Your task to perform on an android device: Search for the best-rated coffee table on Crate & Barrel Image 0: 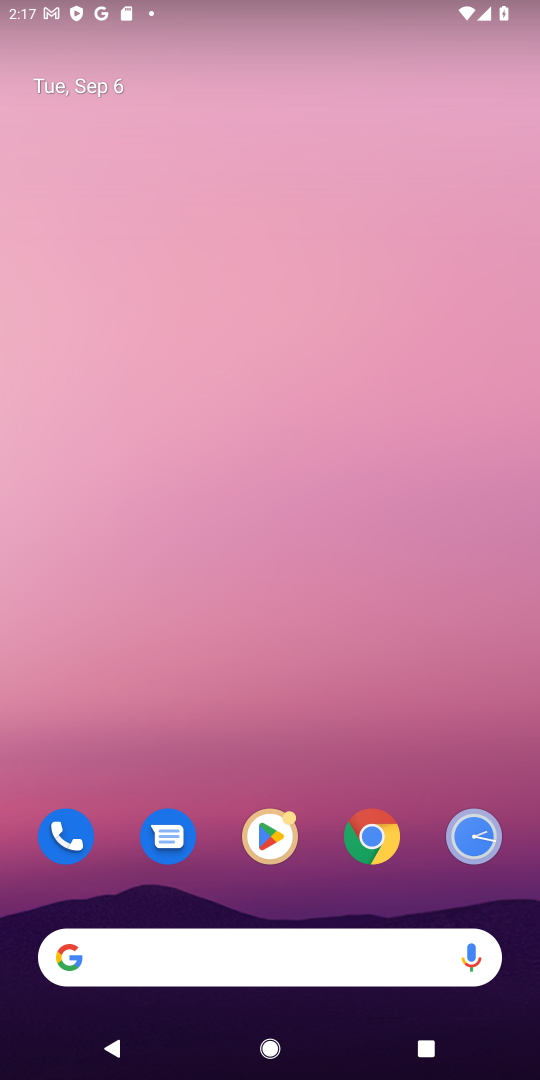
Step 0: click (262, 956)
Your task to perform on an android device: Search for the best-rated coffee table on Crate & Barrel Image 1: 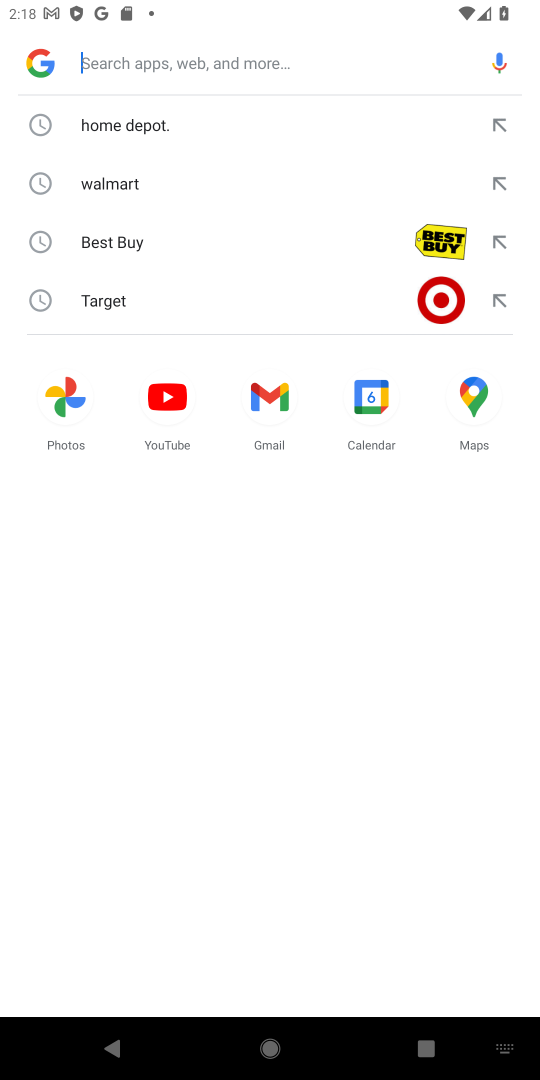
Step 1: type "crate & barrel"
Your task to perform on an android device: Search for the best-rated coffee table on Crate & Barrel Image 2: 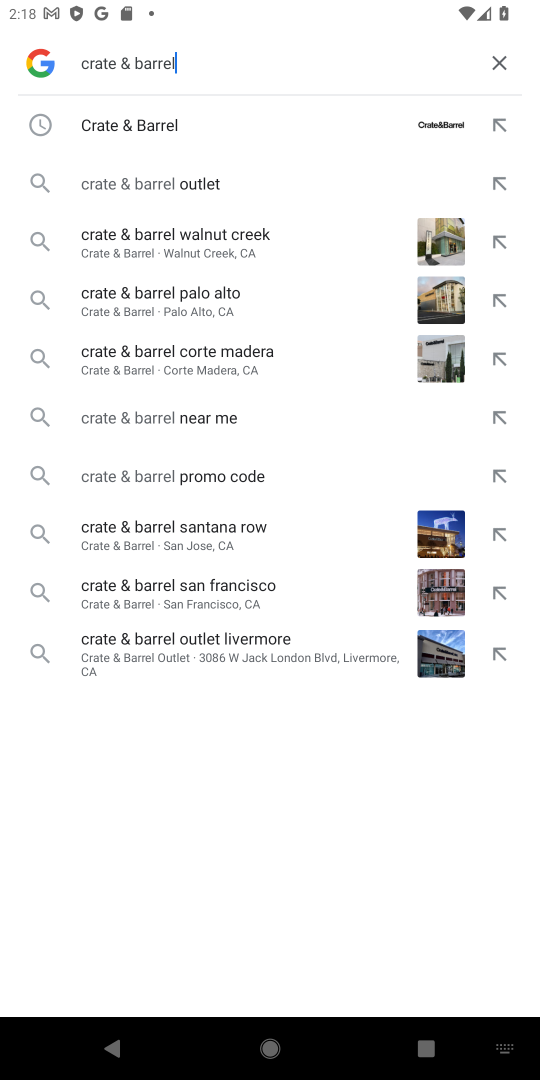
Step 2: click (158, 120)
Your task to perform on an android device: Search for the best-rated coffee table on Crate & Barrel Image 3: 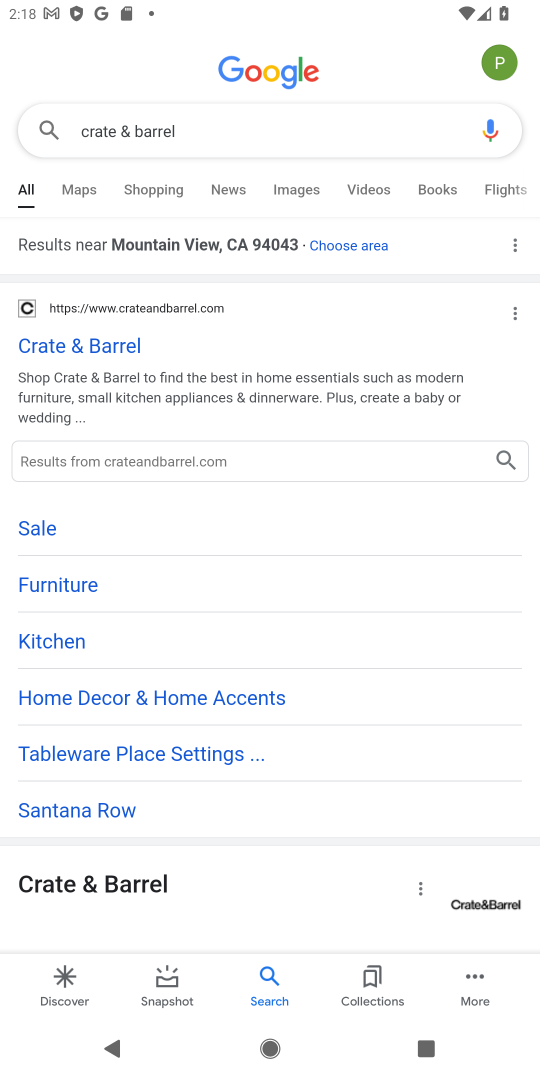
Step 3: click (62, 338)
Your task to perform on an android device: Search for the best-rated coffee table on Crate & Barrel Image 4: 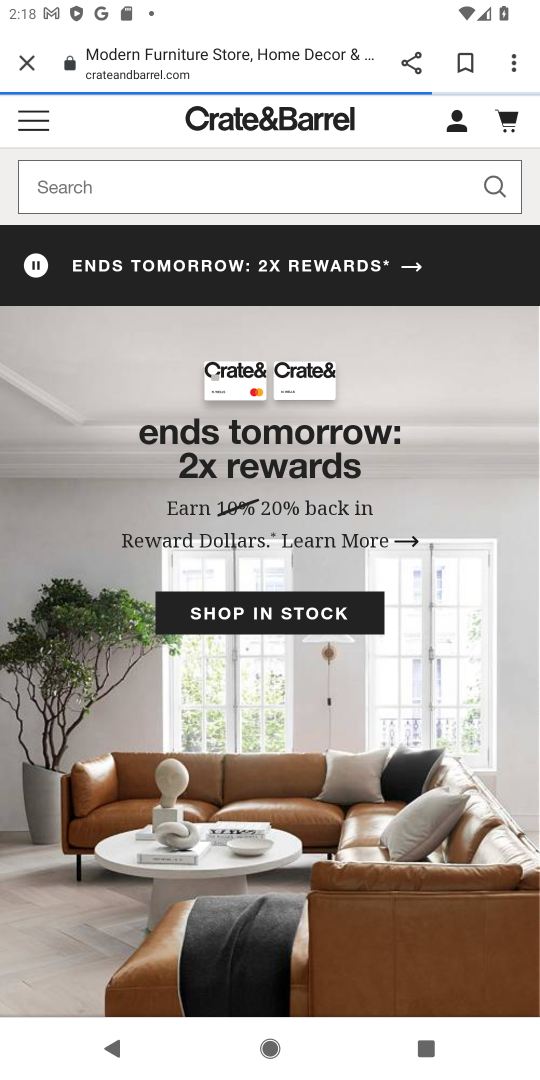
Step 4: click (235, 180)
Your task to perform on an android device: Search for the best-rated coffee table on Crate & Barrel Image 5: 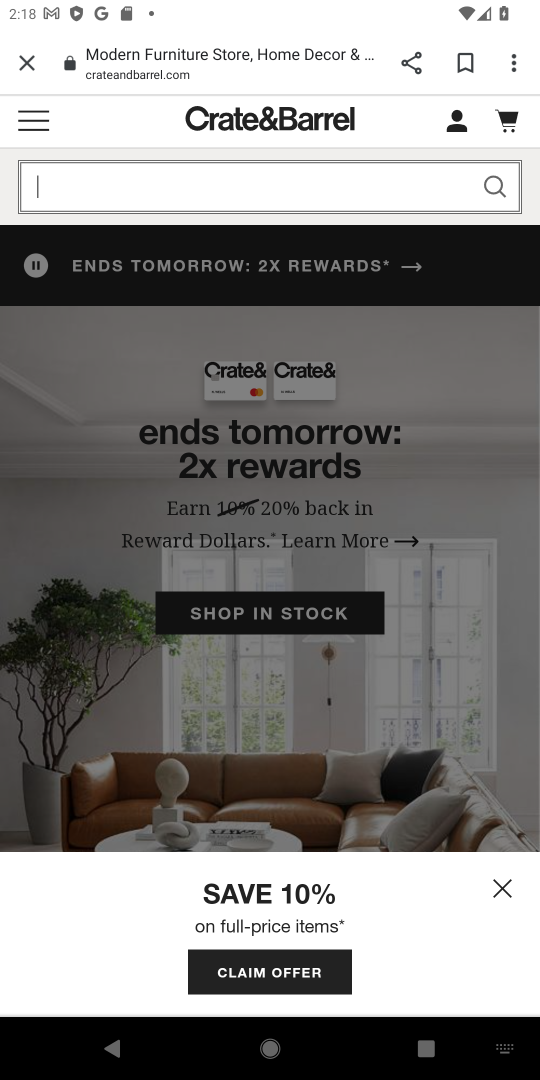
Step 5: click (150, 187)
Your task to perform on an android device: Search for the best-rated coffee table on Crate & Barrel Image 6: 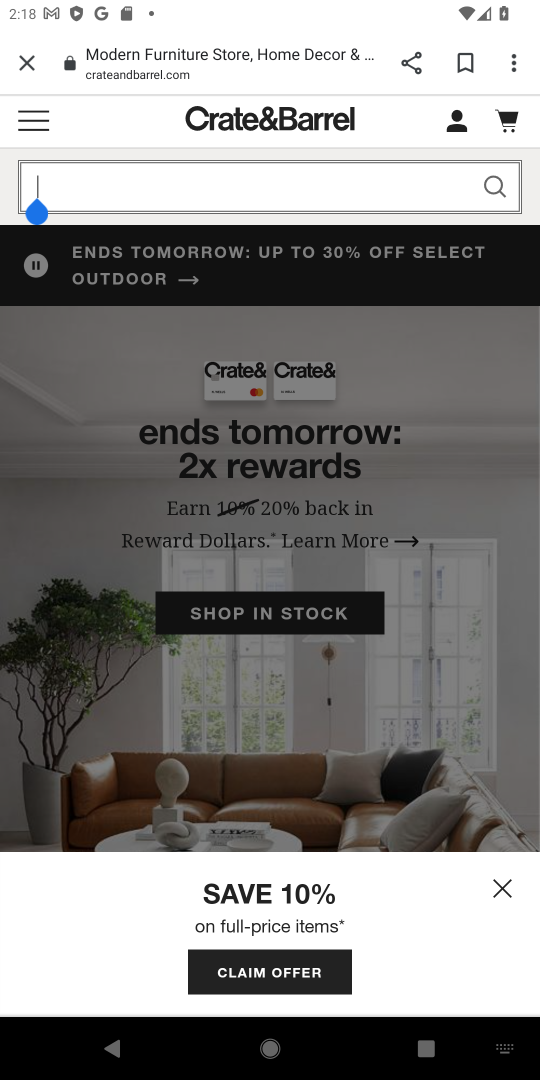
Step 6: type "best rated coffee table"
Your task to perform on an android device: Search for the best-rated coffee table on Crate & Barrel Image 7: 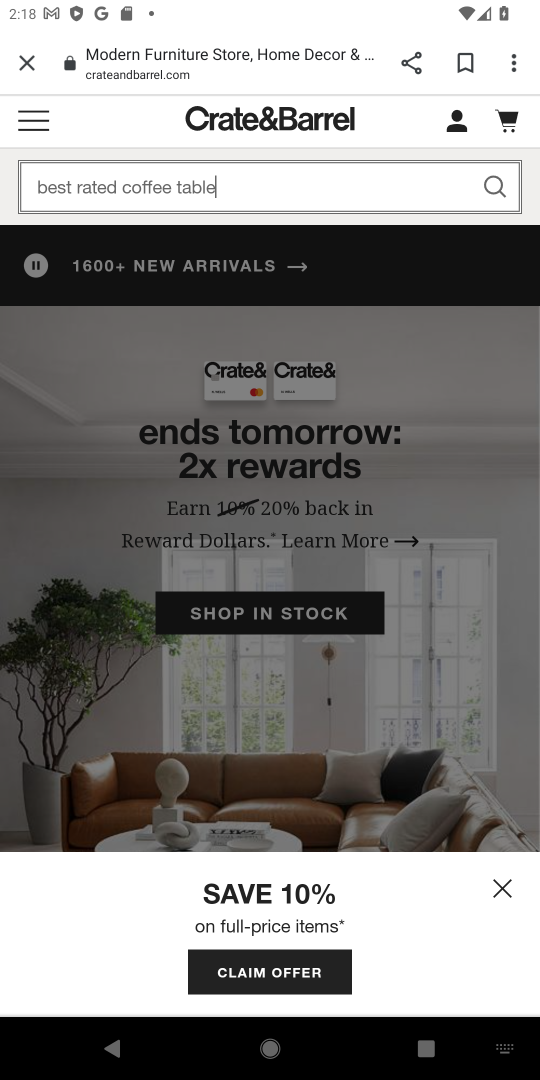
Step 7: click (487, 189)
Your task to perform on an android device: Search for the best-rated coffee table on Crate & Barrel Image 8: 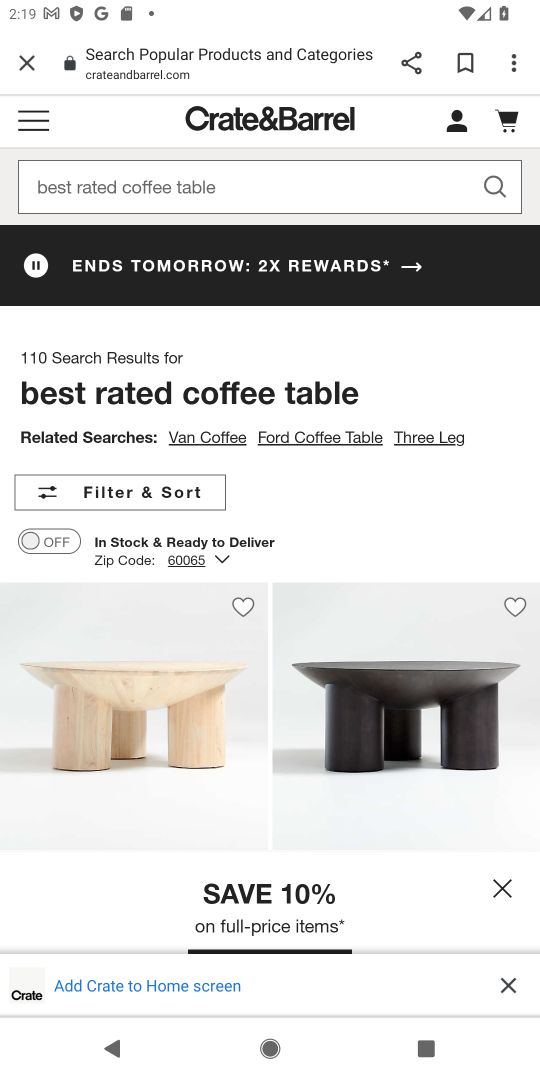
Step 8: task complete